Your task to perform on an android device: What is the recent news? Image 0: 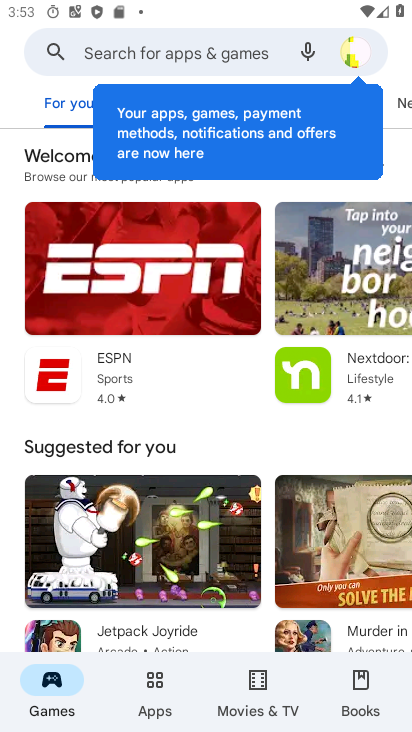
Step 0: press home button
Your task to perform on an android device: What is the recent news? Image 1: 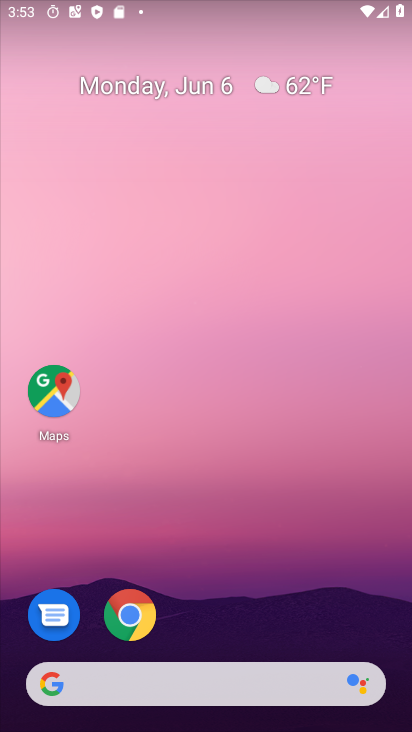
Step 1: drag from (286, 693) to (315, 84)
Your task to perform on an android device: What is the recent news? Image 2: 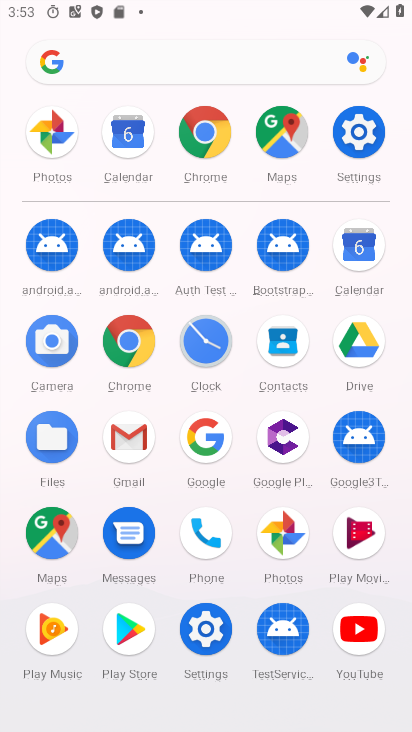
Step 2: click (112, 351)
Your task to perform on an android device: What is the recent news? Image 3: 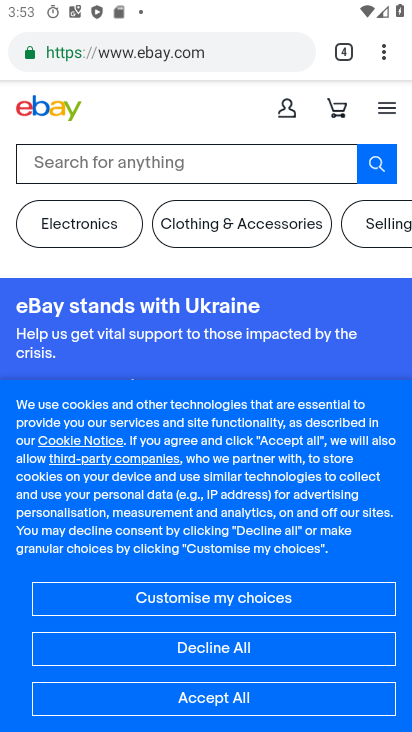
Step 3: drag from (380, 48) to (309, 117)
Your task to perform on an android device: What is the recent news? Image 4: 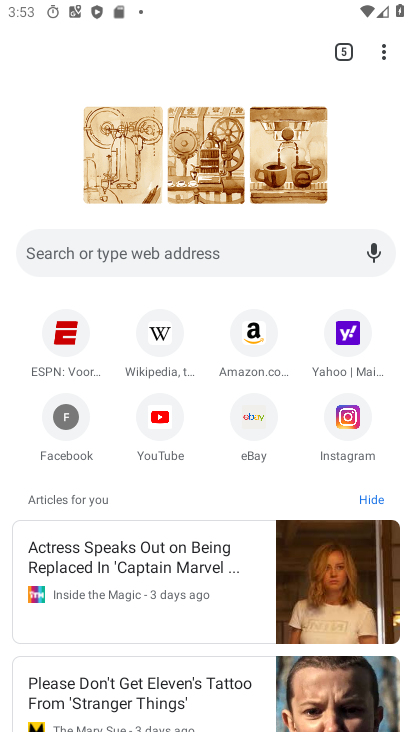
Step 4: click (216, 237)
Your task to perform on an android device: What is the recent news? Image 5: 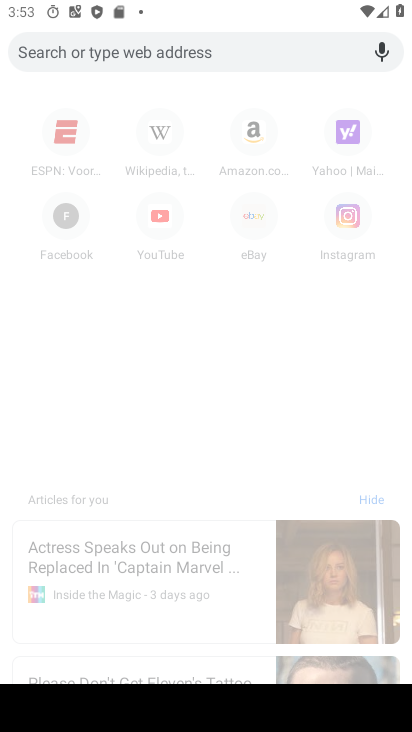
Step 5: type "recent news"
Your task to perform on an android device: What is the recent news? Image 6: 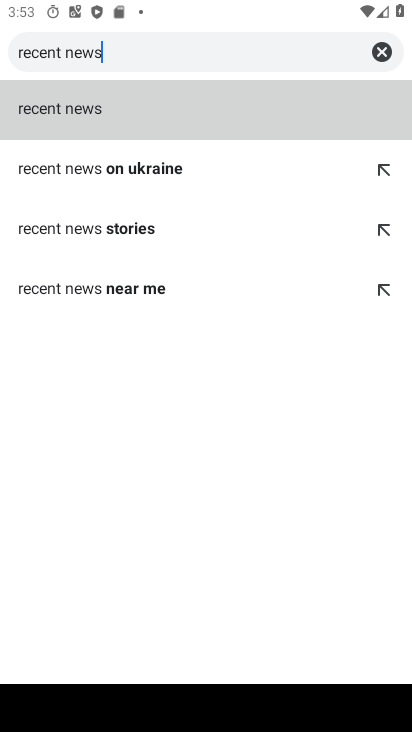
Step 6: click (109, 119)
Your task to perform on an android device: What is the recent news? Image 7: 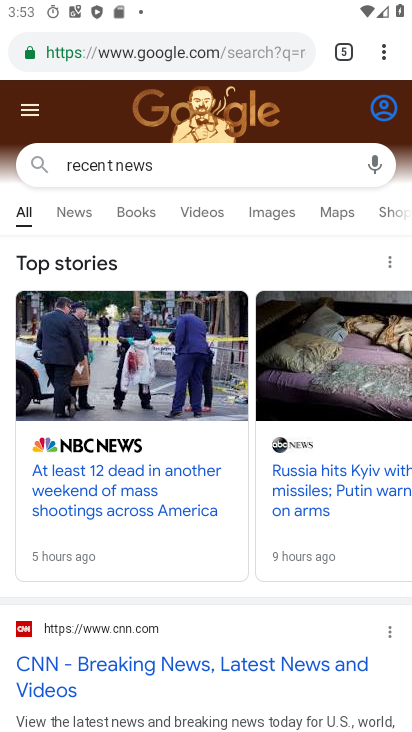
Step 7: task complete